Your task to perform on an android device: add a label to a message in the gmail app Image 0: 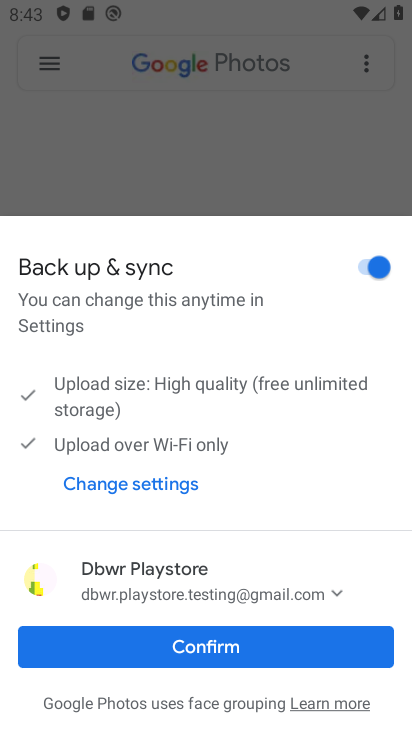
Step 0: press home button
Your task to perform on an android device: add a label to a message in the gmail app Image 1: 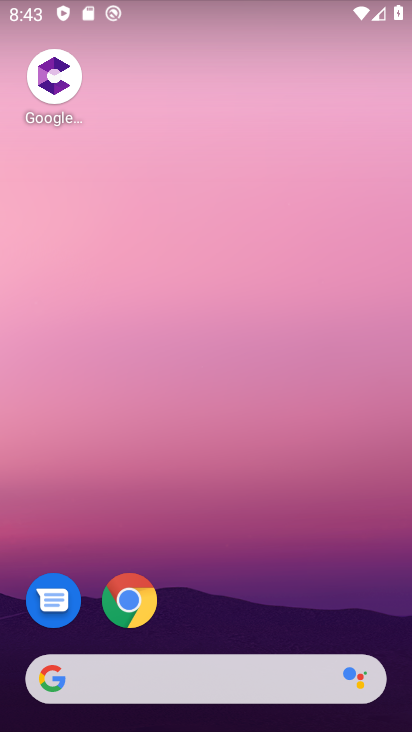
Step 1: drag from (230, 528) to (273, 84)
Your task to perform on an android device: add a label to a message in the gmail app Image 2: 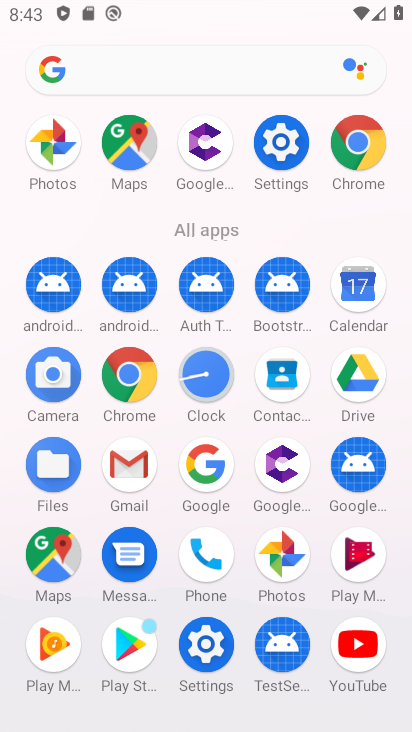
Step 2: click (135, 470)
Your task to perform on an android device: add a label to a message in the gmail app Image 3: 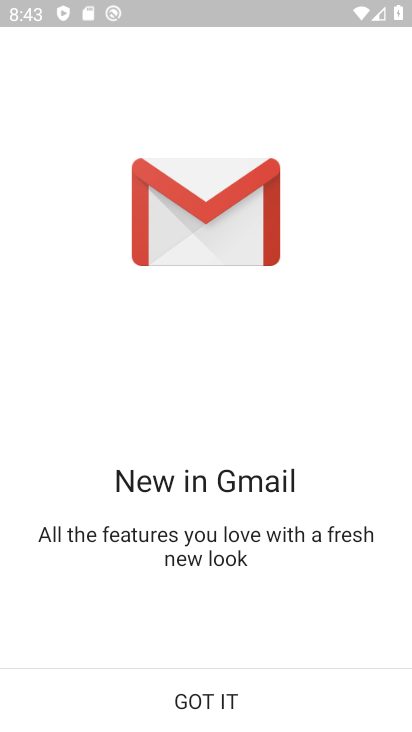
Step 3: click (219, 702)
Your task to perform on an android device: add a label to a message in the gmail app Image 4: 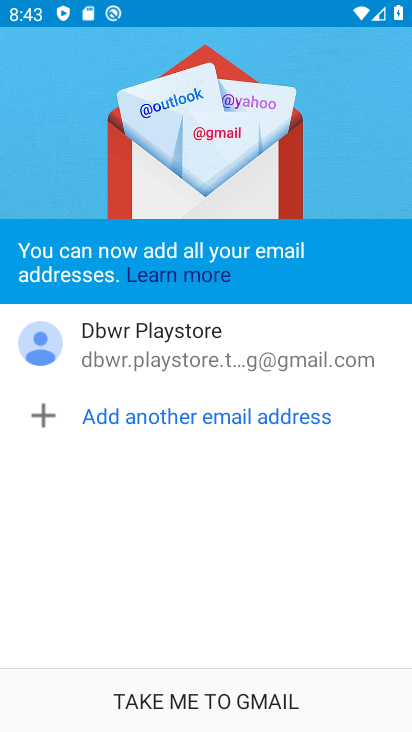
Step 4: click (219, 702)
Your task to perform on an android device: add a label to a message in the gmail app Image 5: 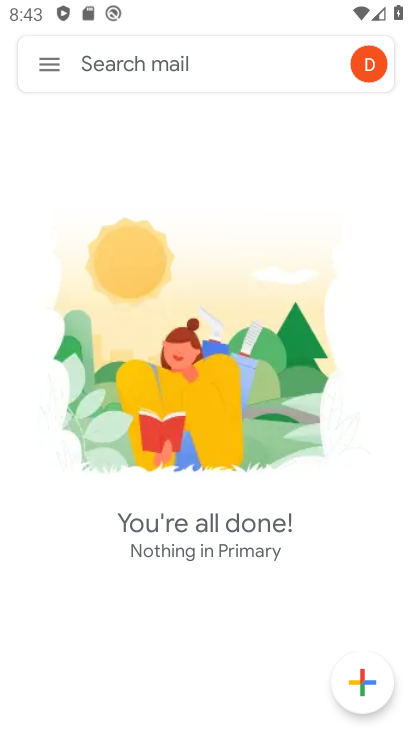
Step 5: click (55, 57)
Your task to perform on an android device: add a label to a message in the gmail app Image 6: 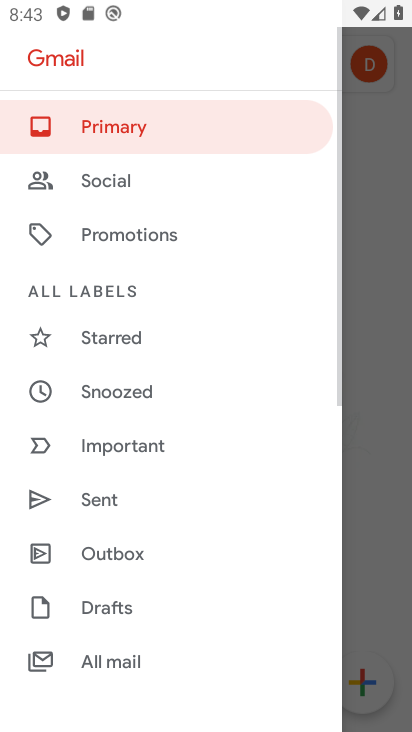
Step 6: drag from (142, 591) to (175, 250)
Your task to perform on an android device: add a label to a message in the gmail app Image 7: 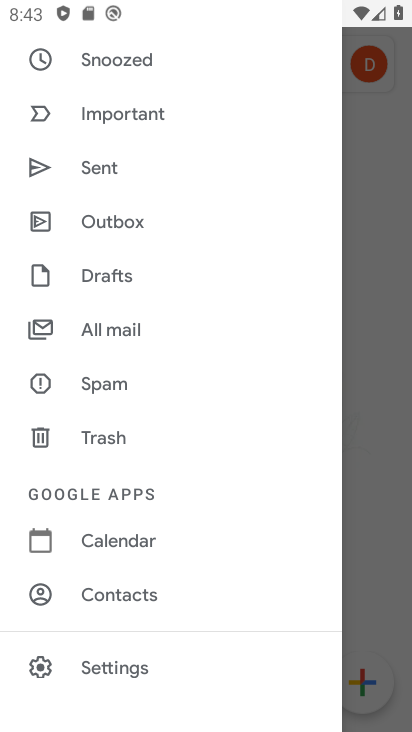
Step 7: click (115, 327)
Your task to perform on an android device: add a label to a message in the gmail app Image 8: 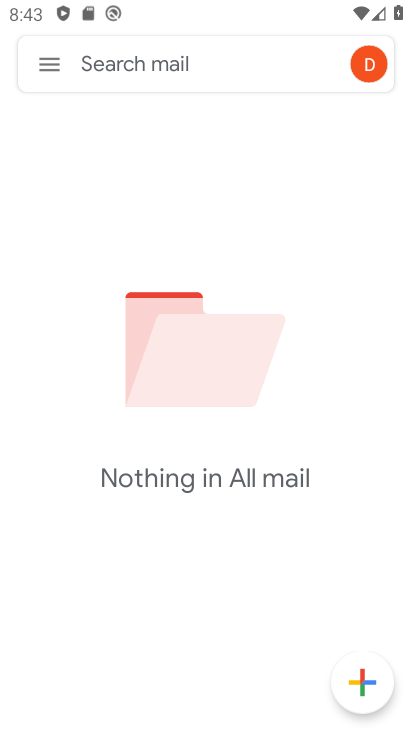
Step 8: task complete